Your task to perform on an android device: change the upload size in google photos Image 0: 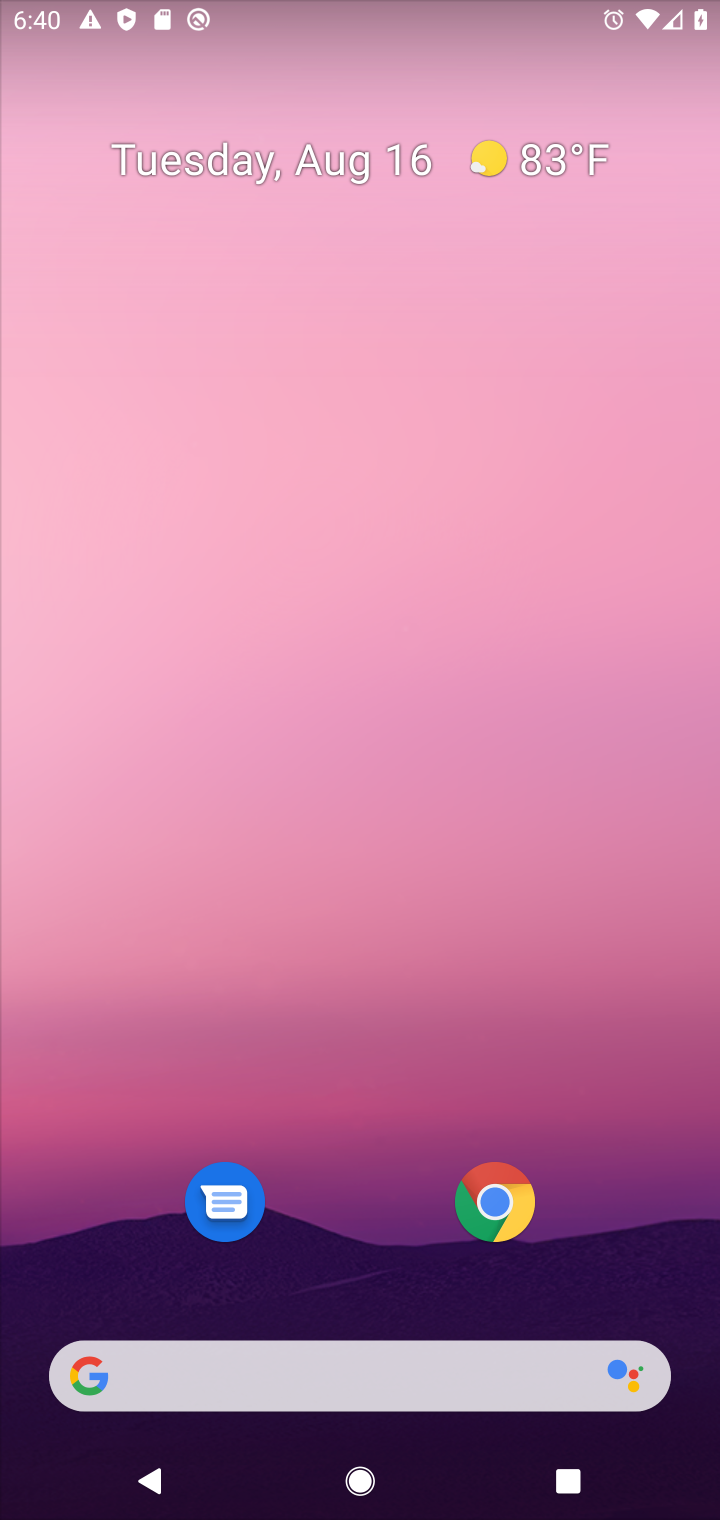
Step 0: drag from (663, 1306) to (454, 34)
Your task to perform on an android device: change the upload size in google photos Image 1: 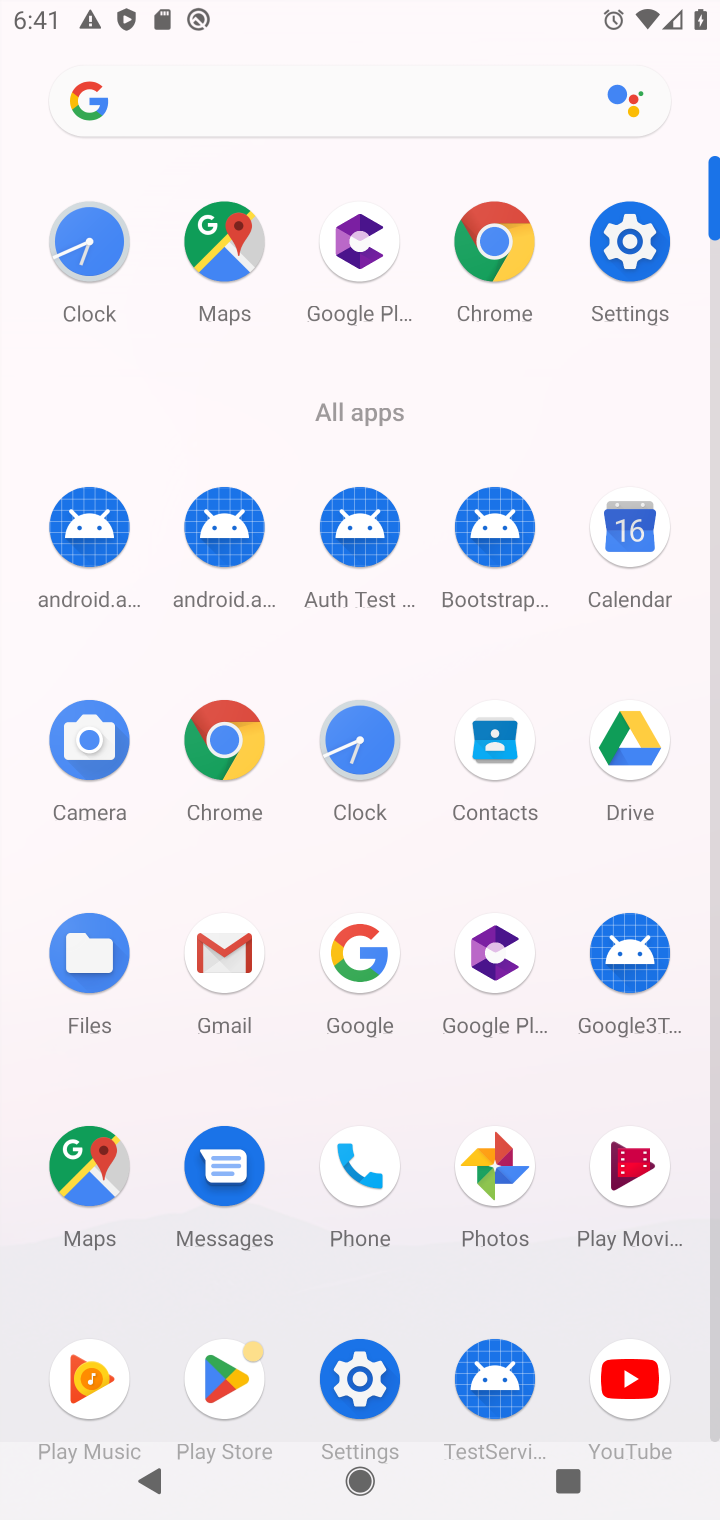
Step 1: click (496, 1176)
Your task to perform on an android device: change the upload size in google photos Image 2: 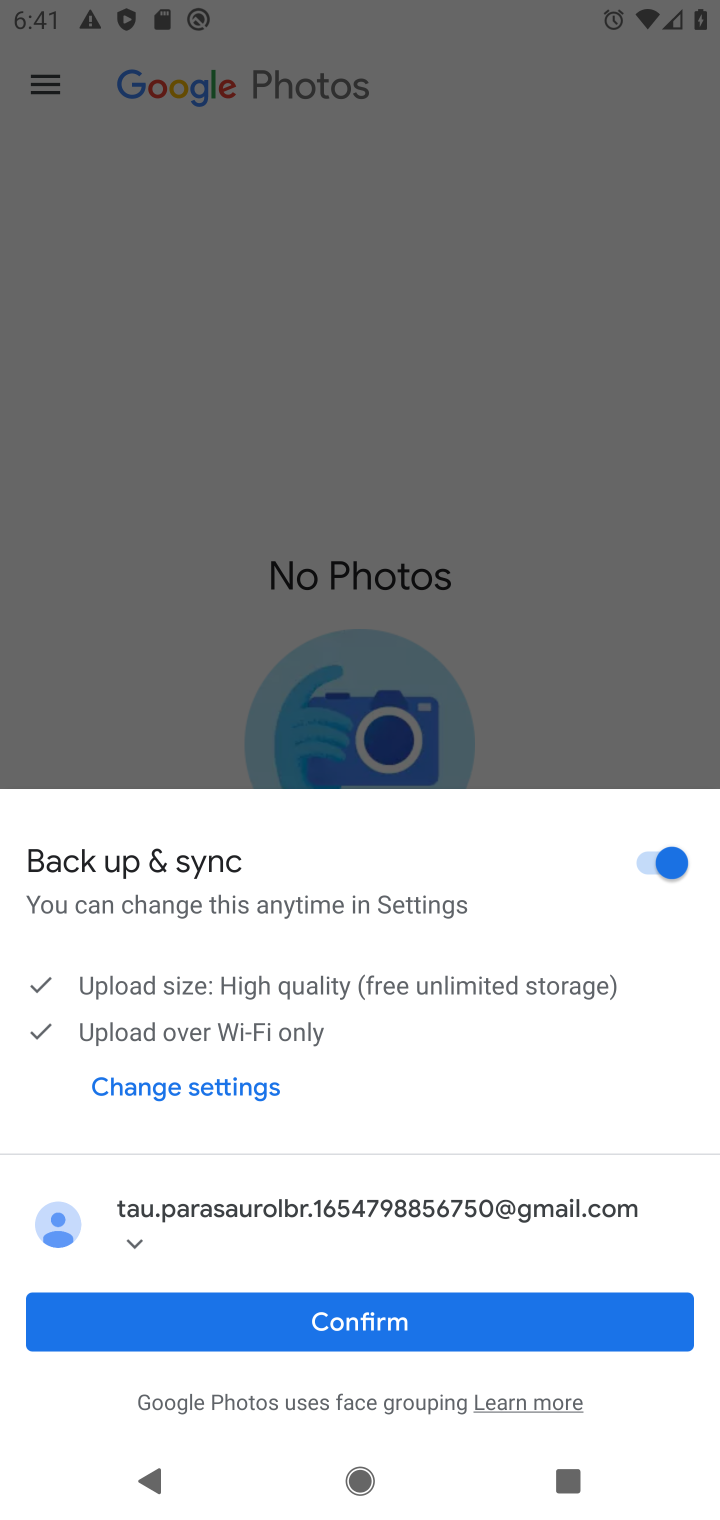
Step 2: click (428, 1310)
Your task to perform on an android device: change the upload size in google photos Image 3: 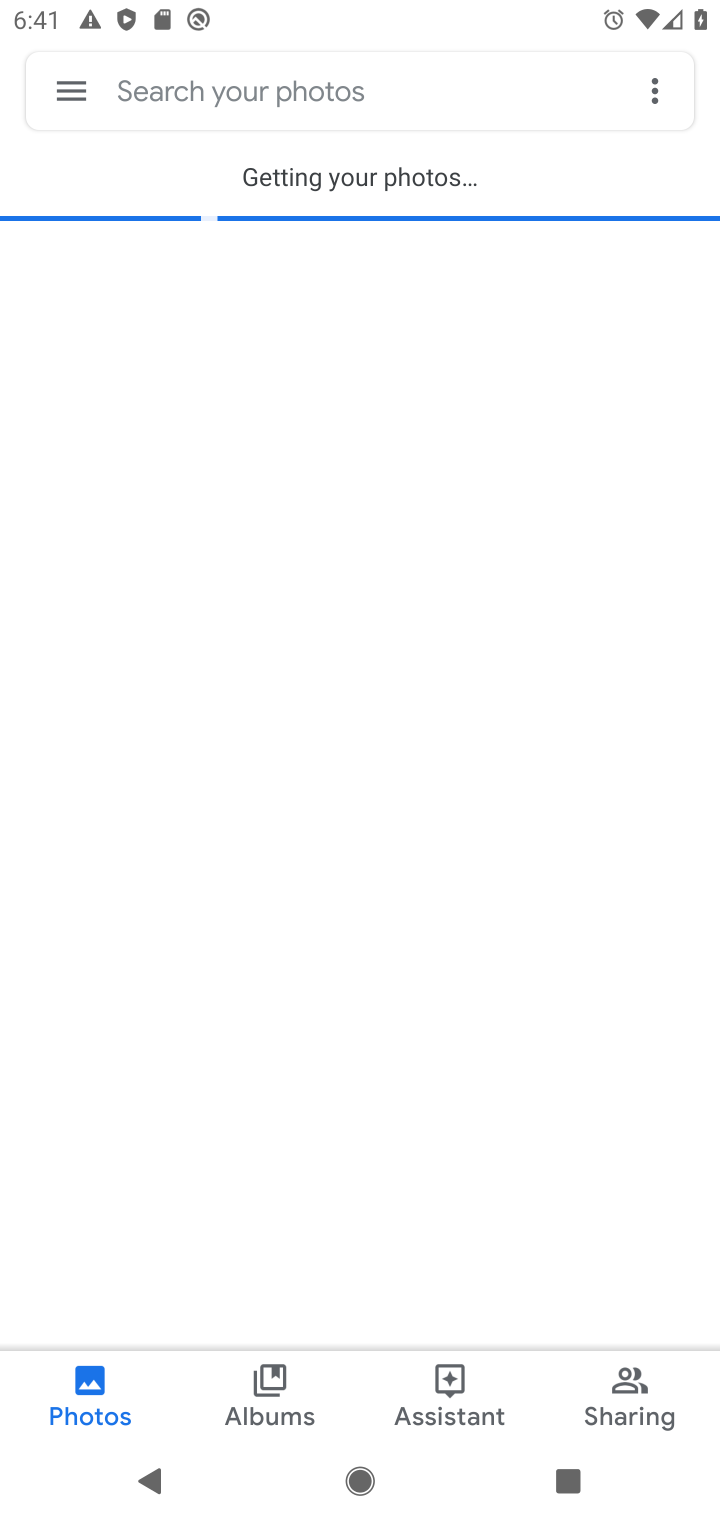
Step 3: click (72, 99)
Your task to perform on an android device: change the upload size in google photos Image 4: 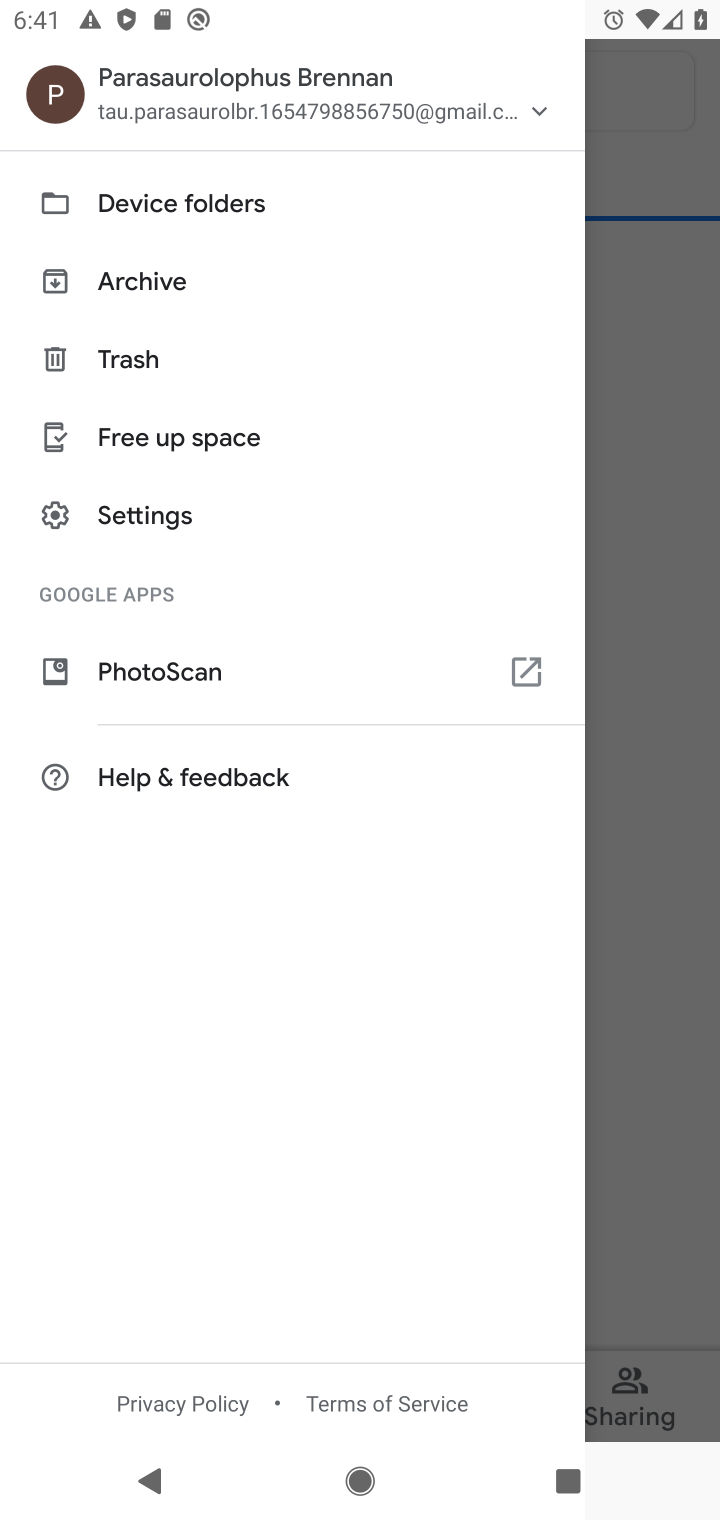
Step 4: click (139, 536)
Your task to perform on an android device: change the upload size in google photos Image 5: 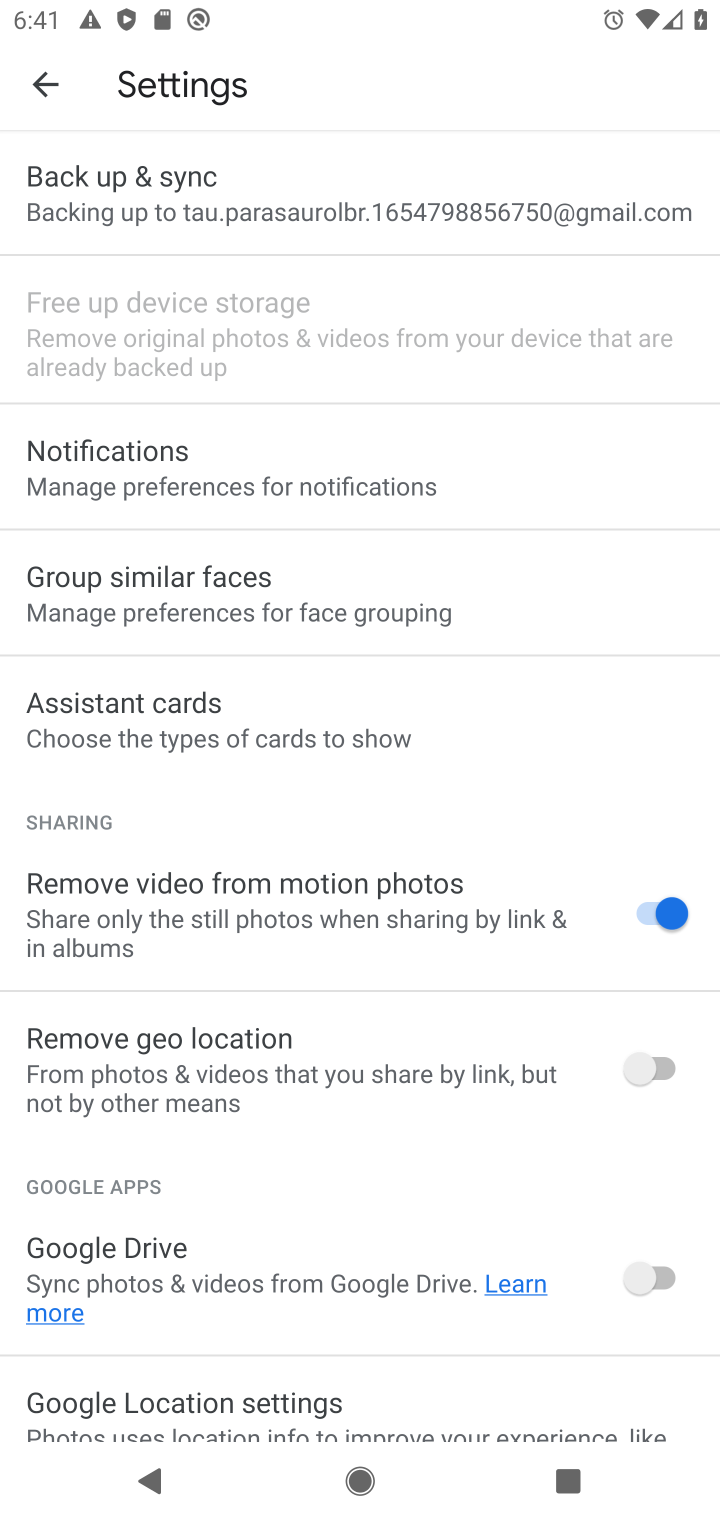
Step 5: click (173, 192)
Your task to perform on an android device: change the upload size in google photos Image 6: 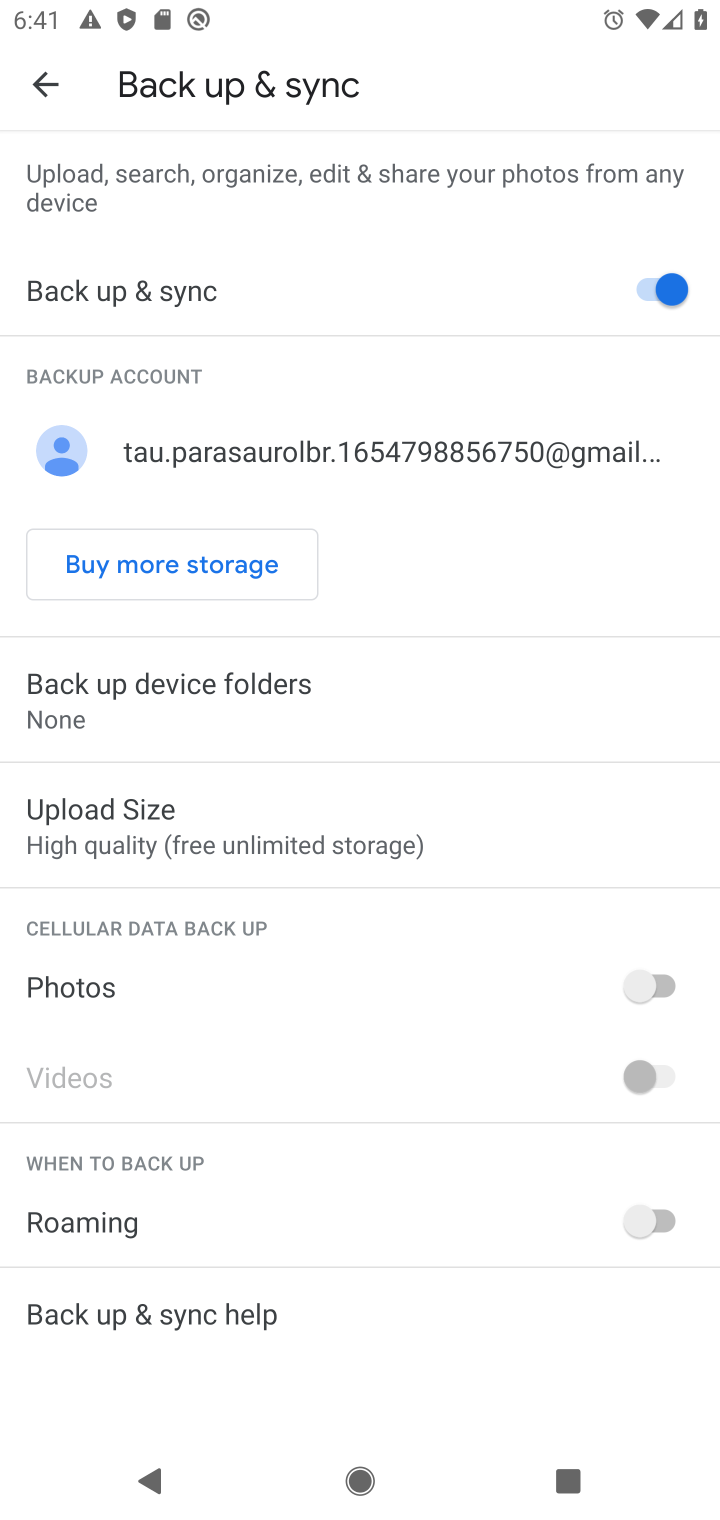
Step 6: click (248, 842)
Your task to perform on an android device: change the upload size in google photos Image 7: 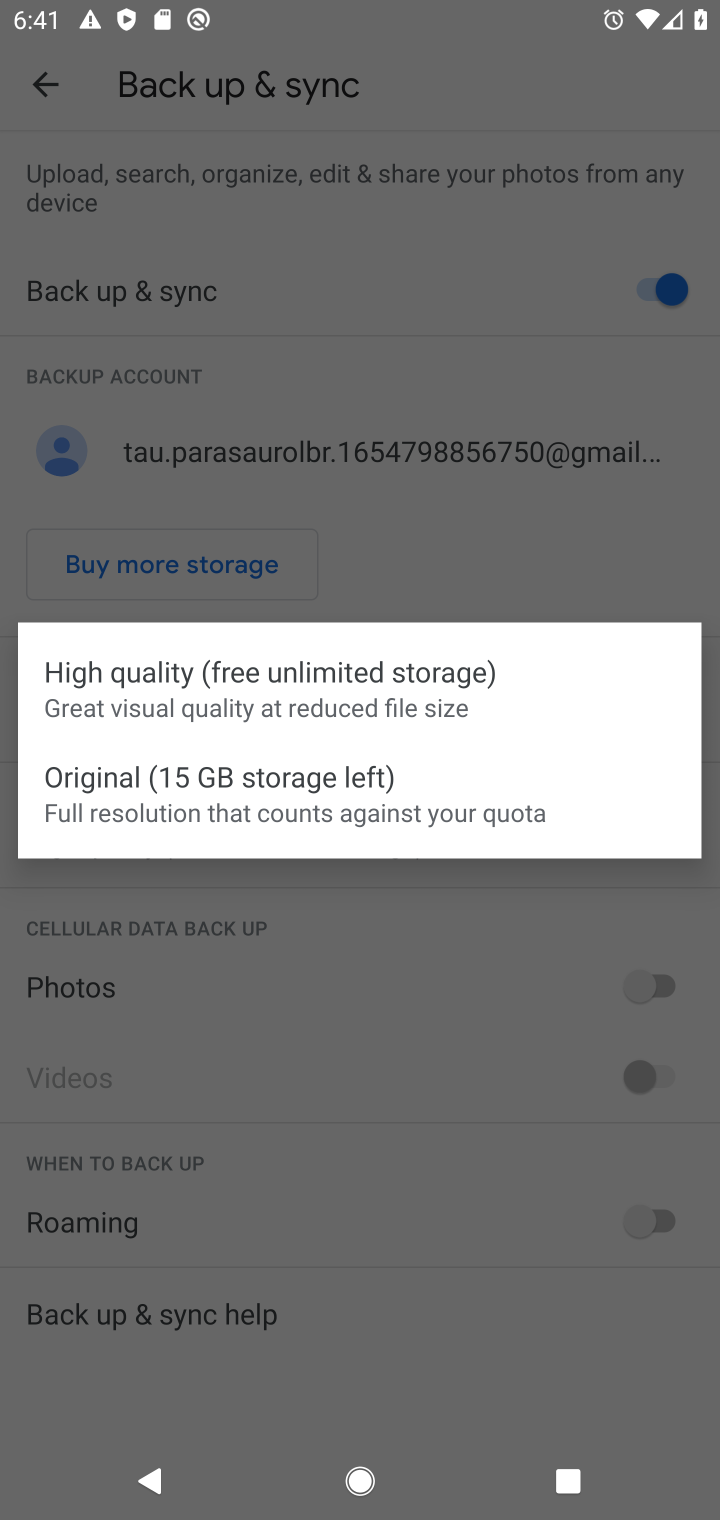
Step 7: click (193, 767)
Your task to perform on an android device: change the upload size in google photos Image 8: 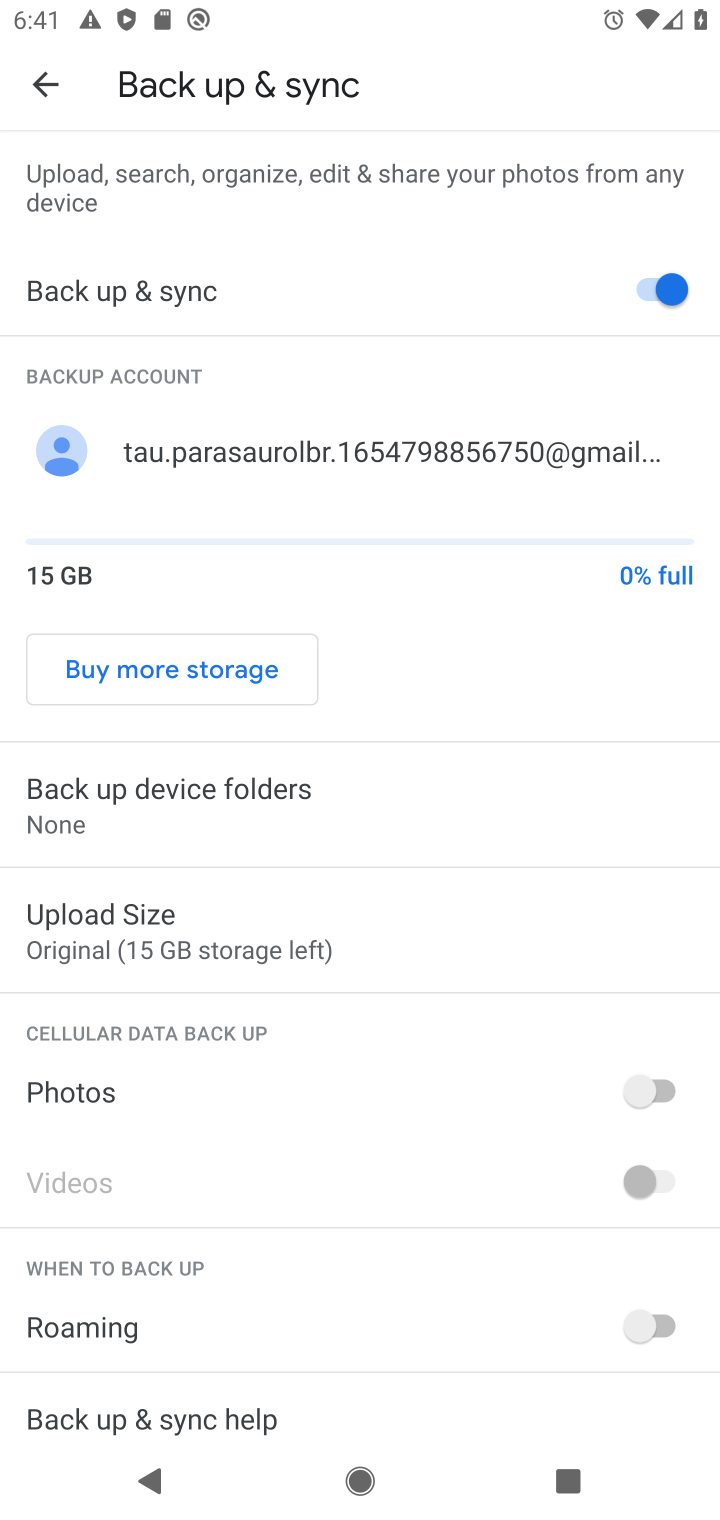
Step 8: task complete